Your task to perform on an android device: show emergency info Image 0: 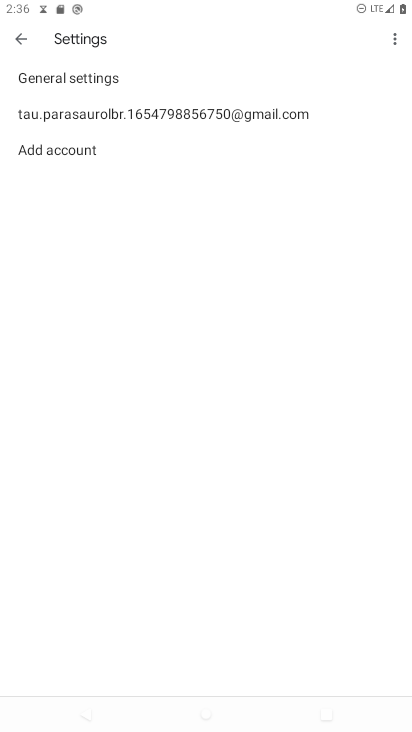
Step 0: press home button
Your task to perform on an android device: show emergency info Image 1: 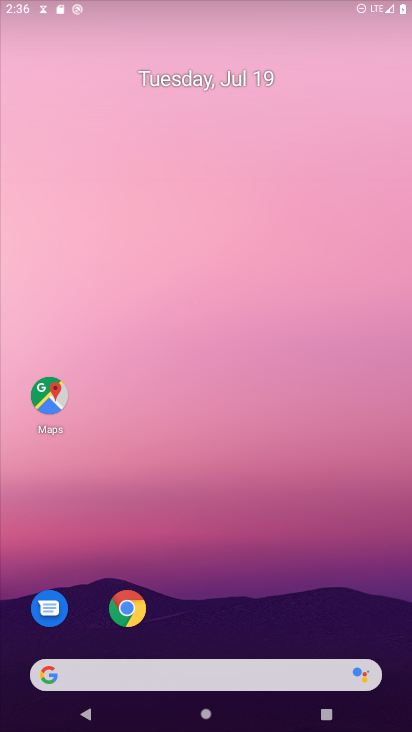
Step 1: drag from (230, 625) to (237, 0)
Your task to perform on an android device: show emergency info Image 2: 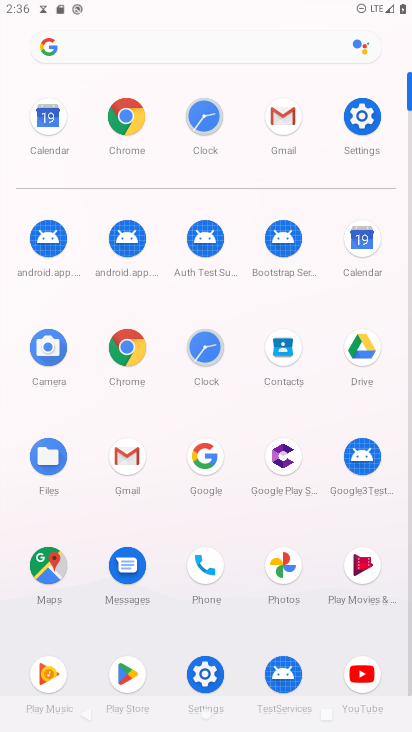
Step 2: click (345, 141)
Your task to perform on an android device: show emergency info Image 3: 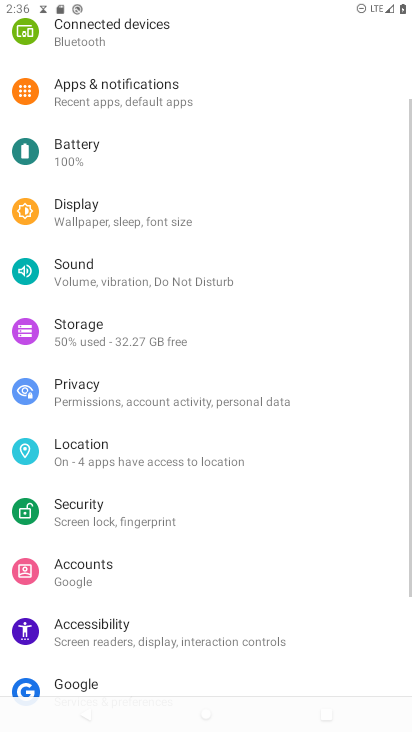
Step 3: drag from (250, 609) to (232, 40)
Your task to perform on an android device: show emergency info Image 4: 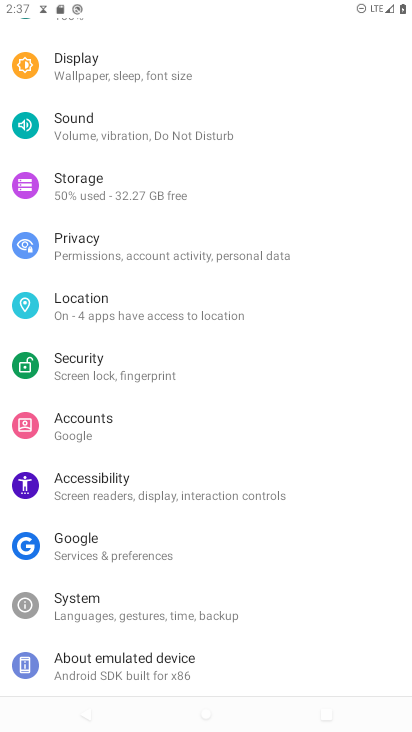
Step 4: click (199, 672)
Your task to perform on an android device: show emergency info Image 5: 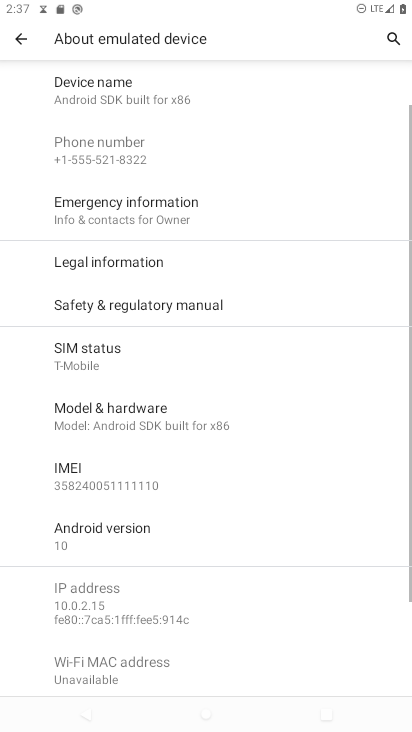
Step 5: click (172, 206)
Your task to perform on an android device: show emergency info Image 6: 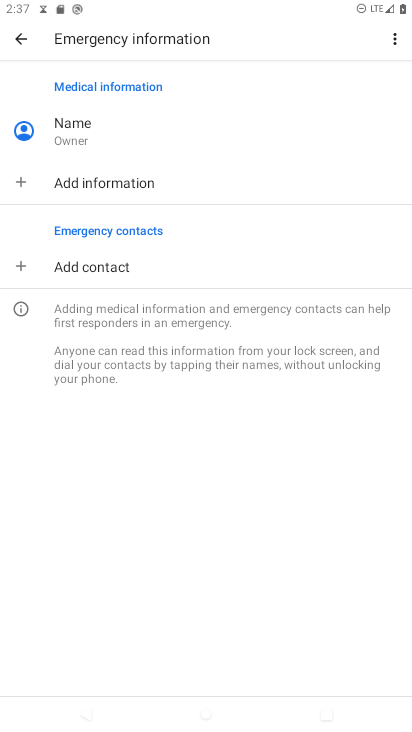
Step 6: task complete